Your task to perform on an android device: Go to Reddit.com Image 0: 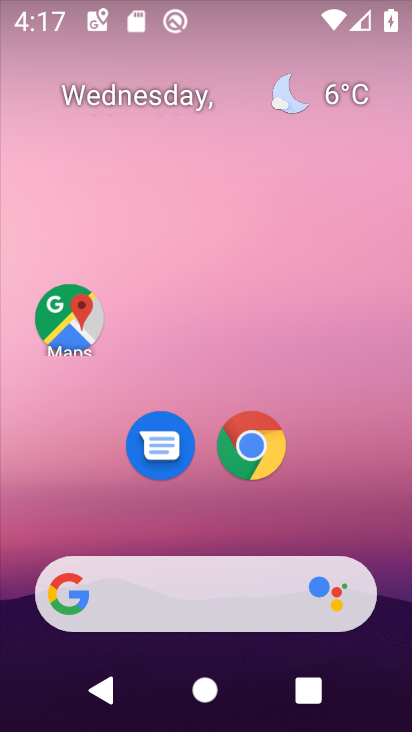
Step 0: click (257, 456)
Your task to perform on an android device: Go to Reddit.com Image 1: 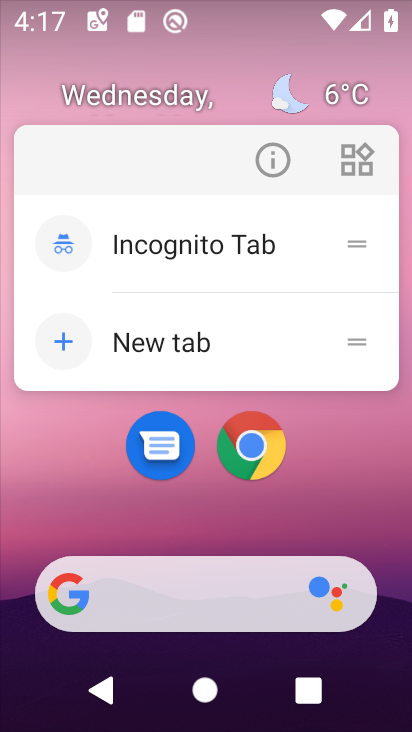
Step 1: click (265, 443)
Your task to perform on an android device: Go to Reddit.com Image 2: 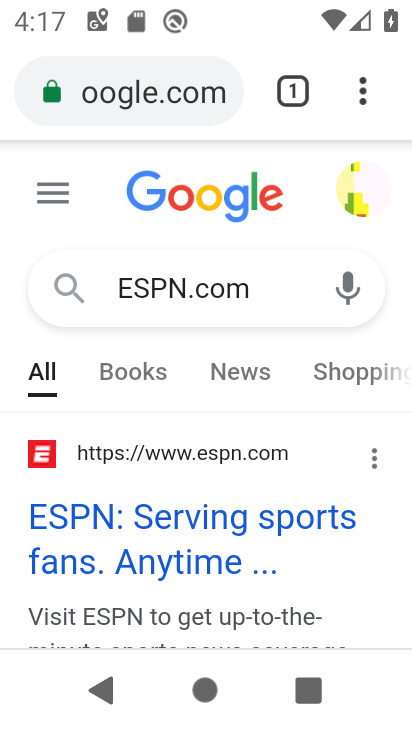
Step 2: click (171, 97)
Your task to perform on an android device: Go to Reddit.com Image 3: 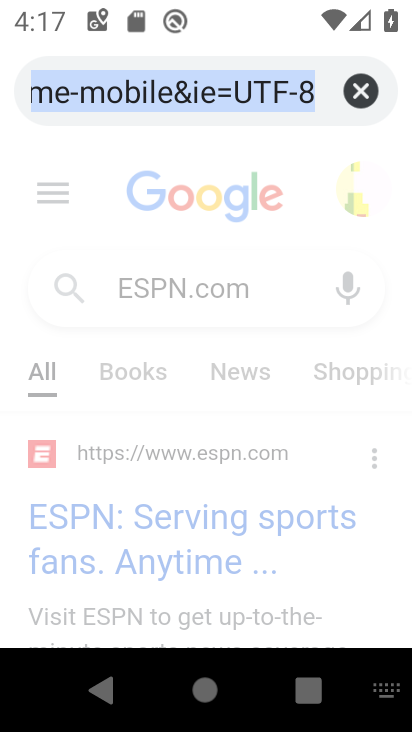
Step 3: type "Reddit.com"
Your task to perform on an android device: Go to Reddit.com Image 4: 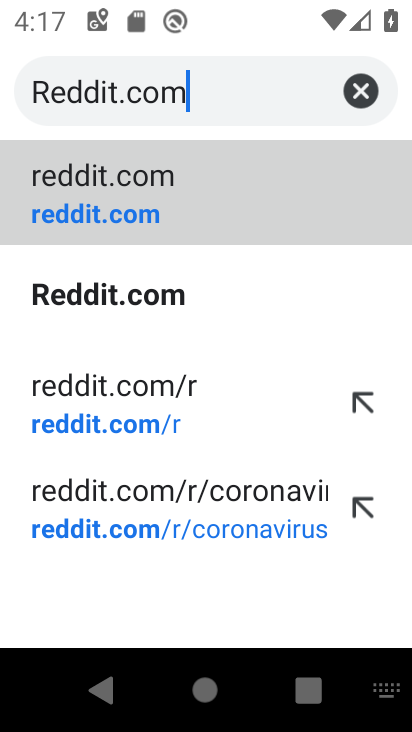
Step 4: click (161, 190)
Your task to perform on an android device: Go to Reddit.com Image 5: 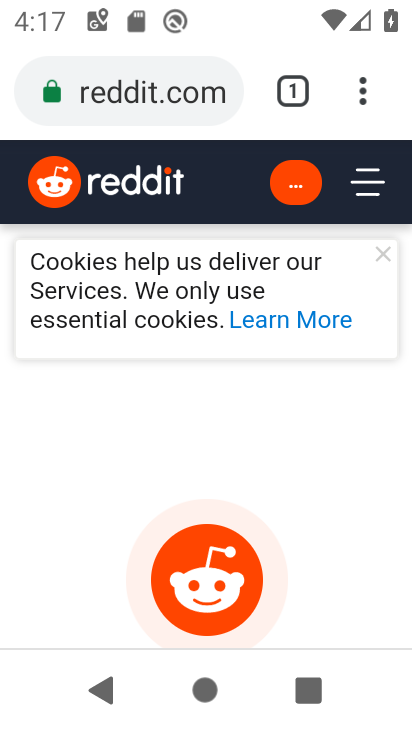
Step 5: task complete